Your task to perform on an android device: open app "Pinterest" Image 0: 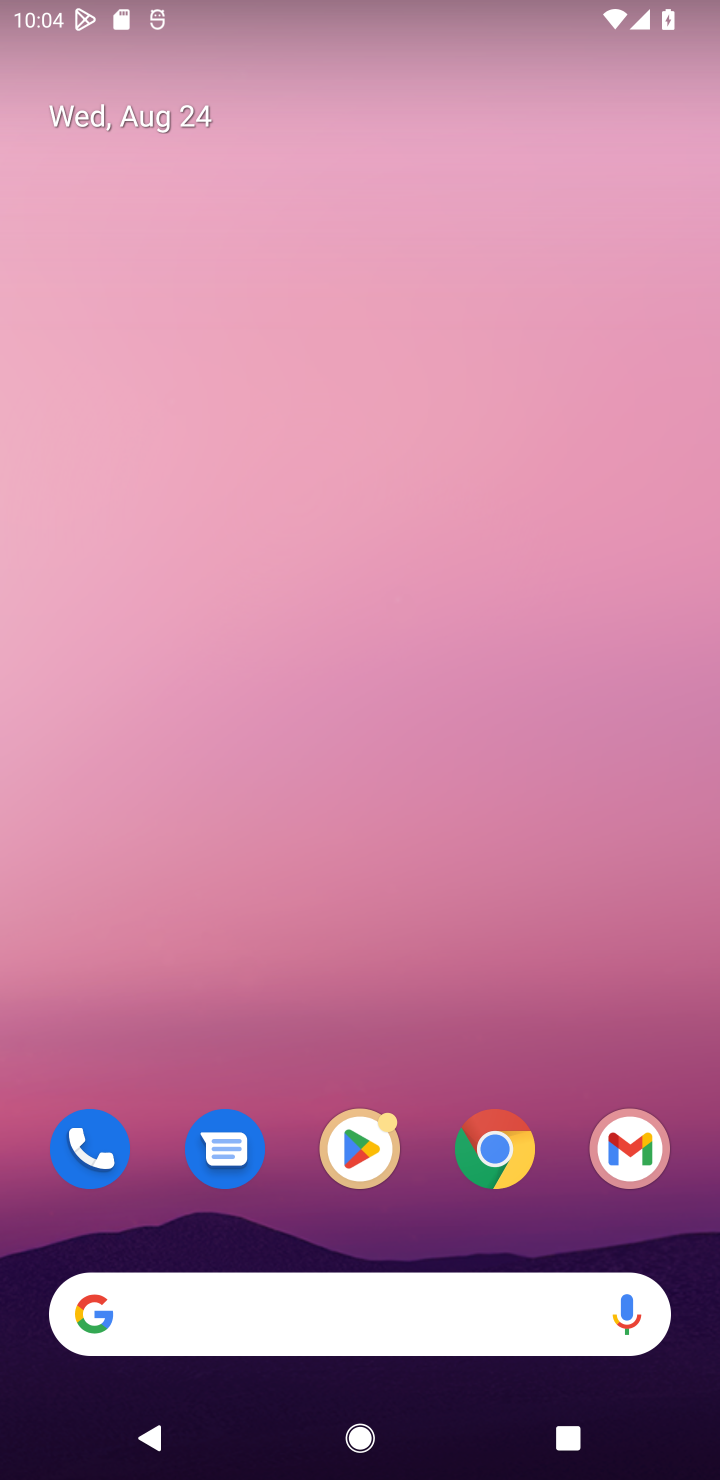
Step 0: drag from (489, 1084) to (518, 90)
Your task to perform on an android device: open app "Pinterest" Image 1: 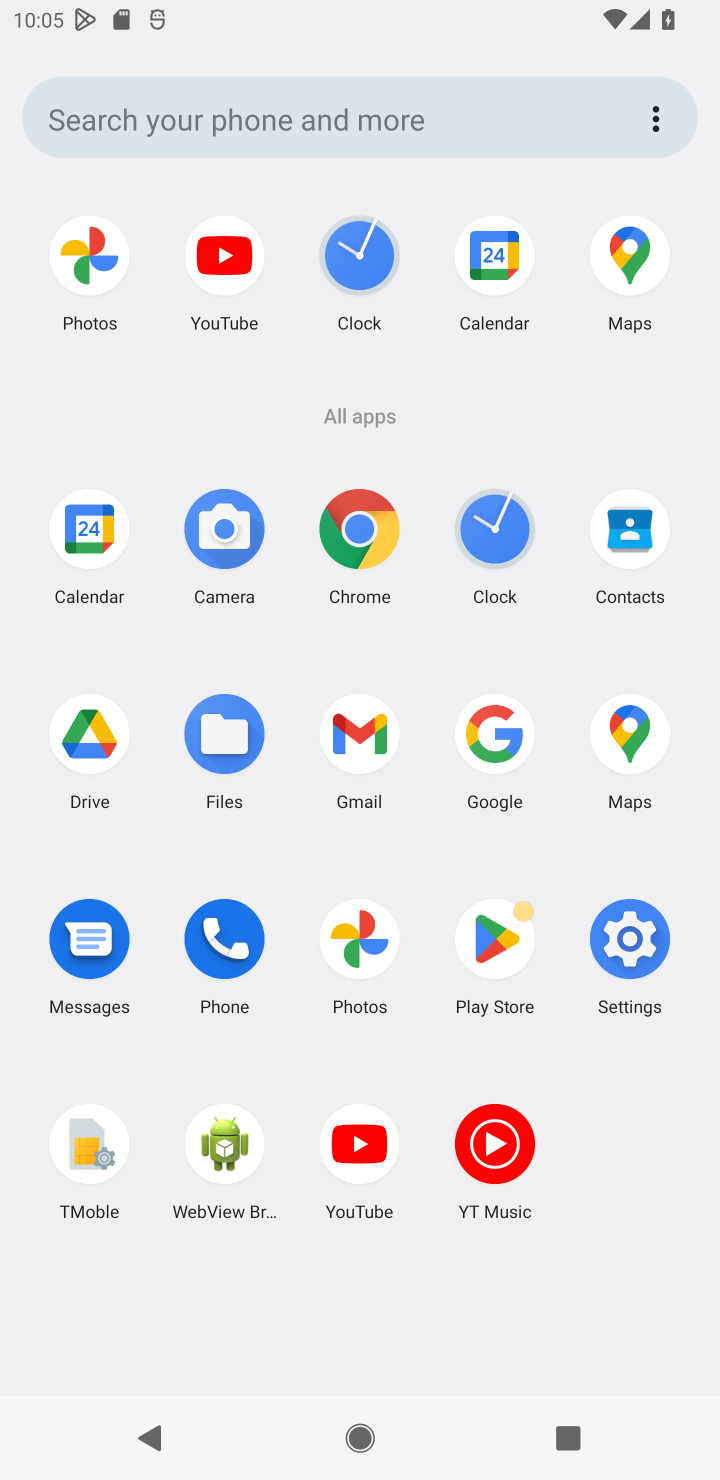
Step 1: click (495, 959)
Your task to perform on an android device: open app "Pinterest" Image 2: 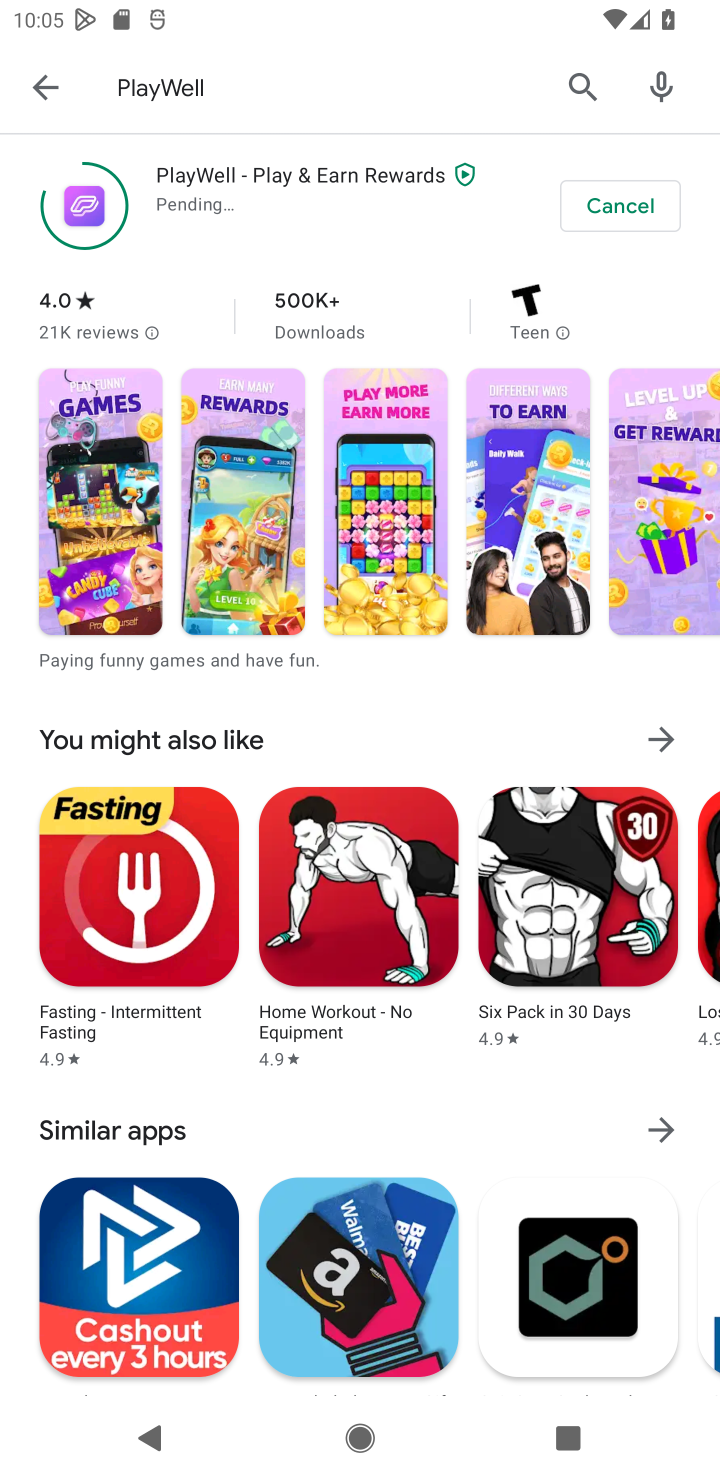
Step 2: press back button
Your task to perform on an android device: open app "Pinterest" Image 3: 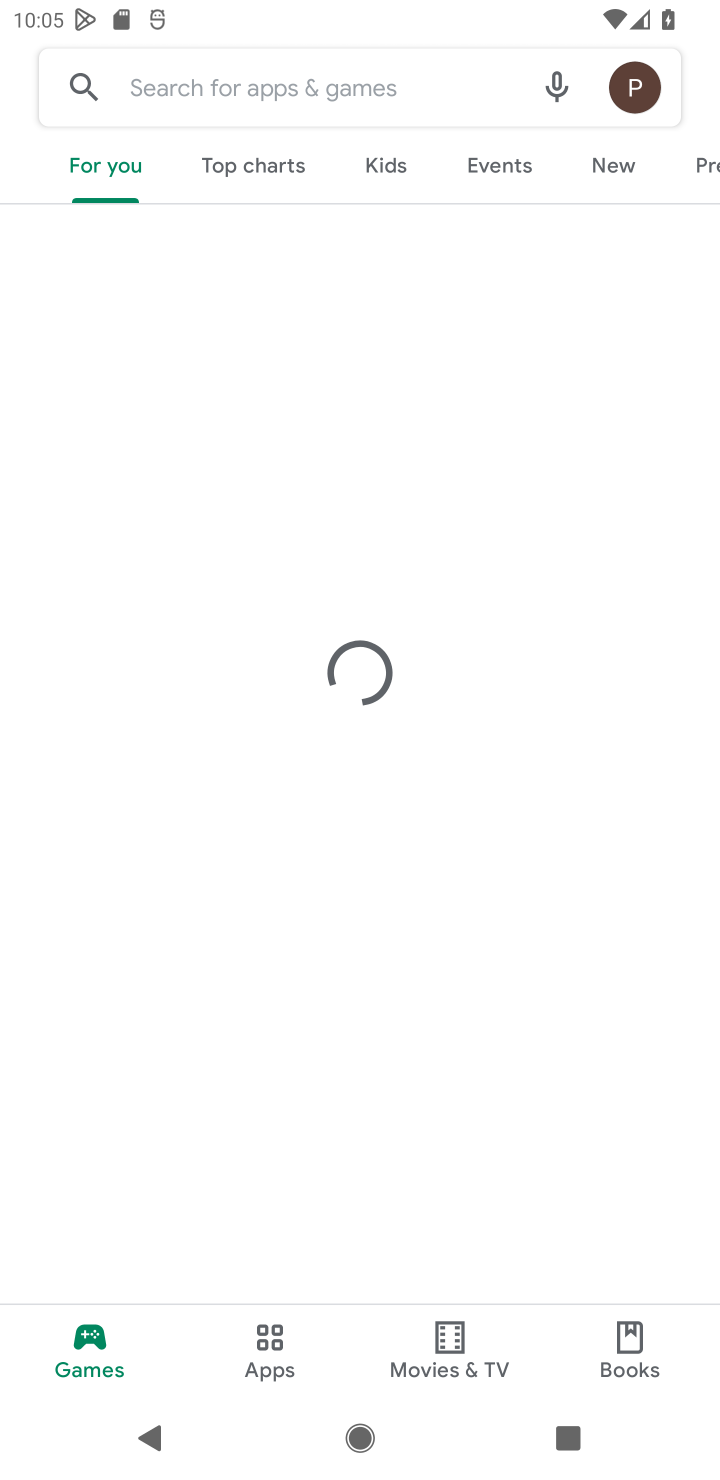
Step 3: click (251, 91)
Your task to perform on an android device: open app "Pinterest" Image 4: 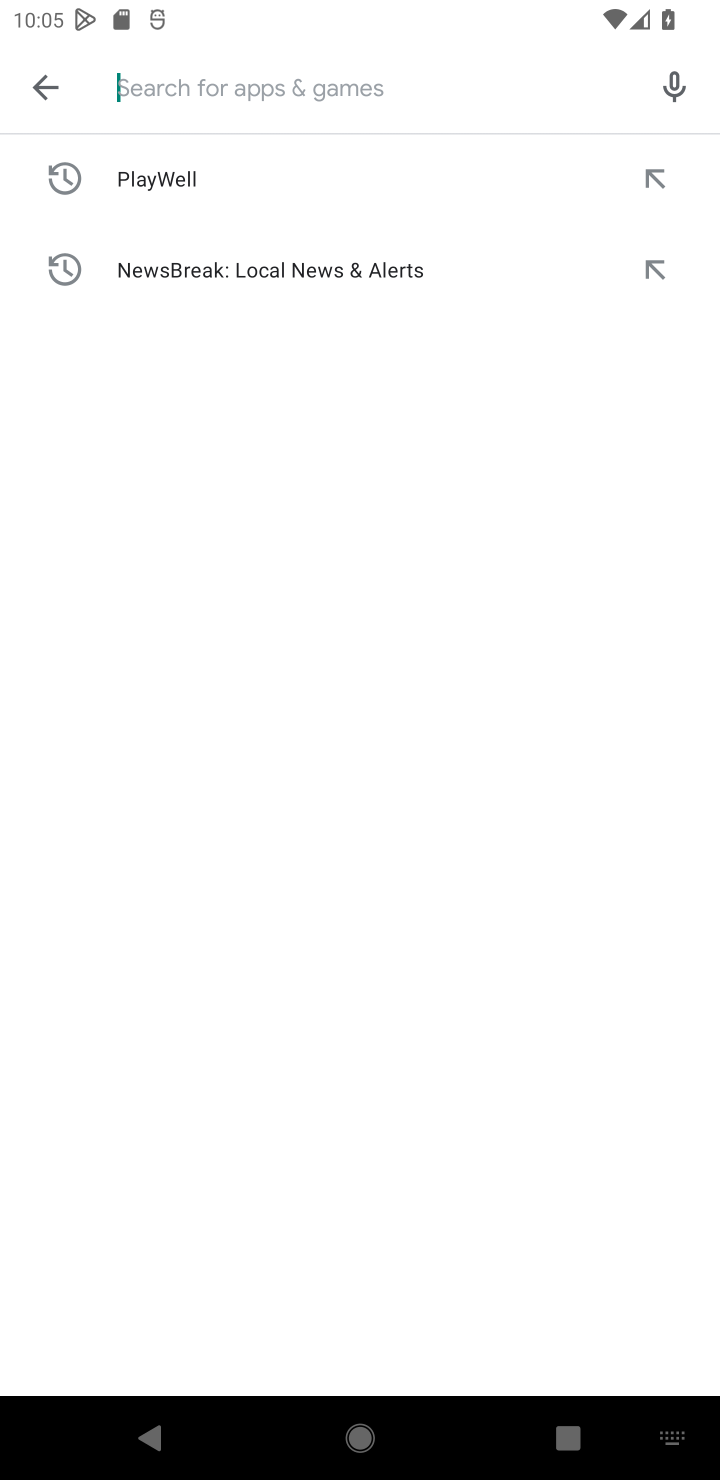
Step 4: type "Pinterest"
Your task to perform on an android device: open app "Pinterest" Image 5: 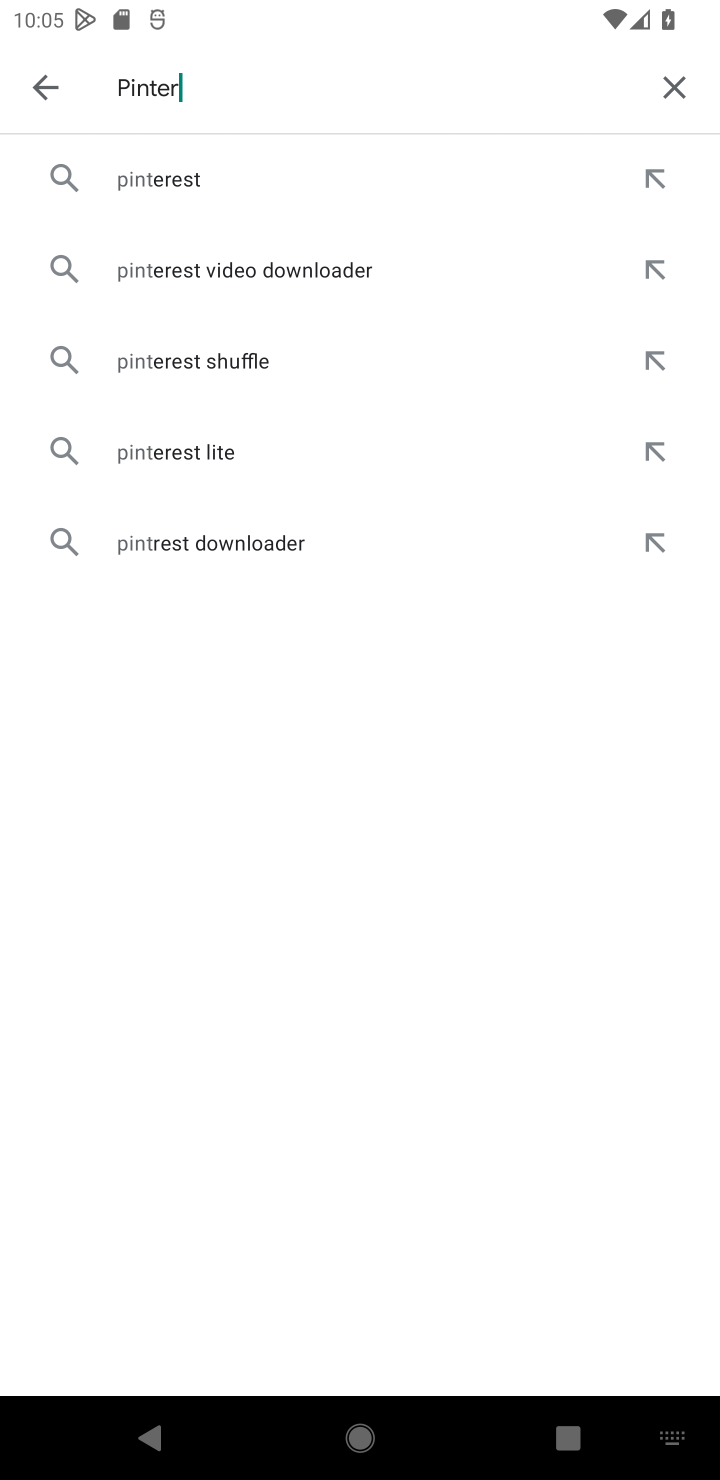
Step 5: press enter
Your task to perform on an android device: open app "Pinterest" Image 6: 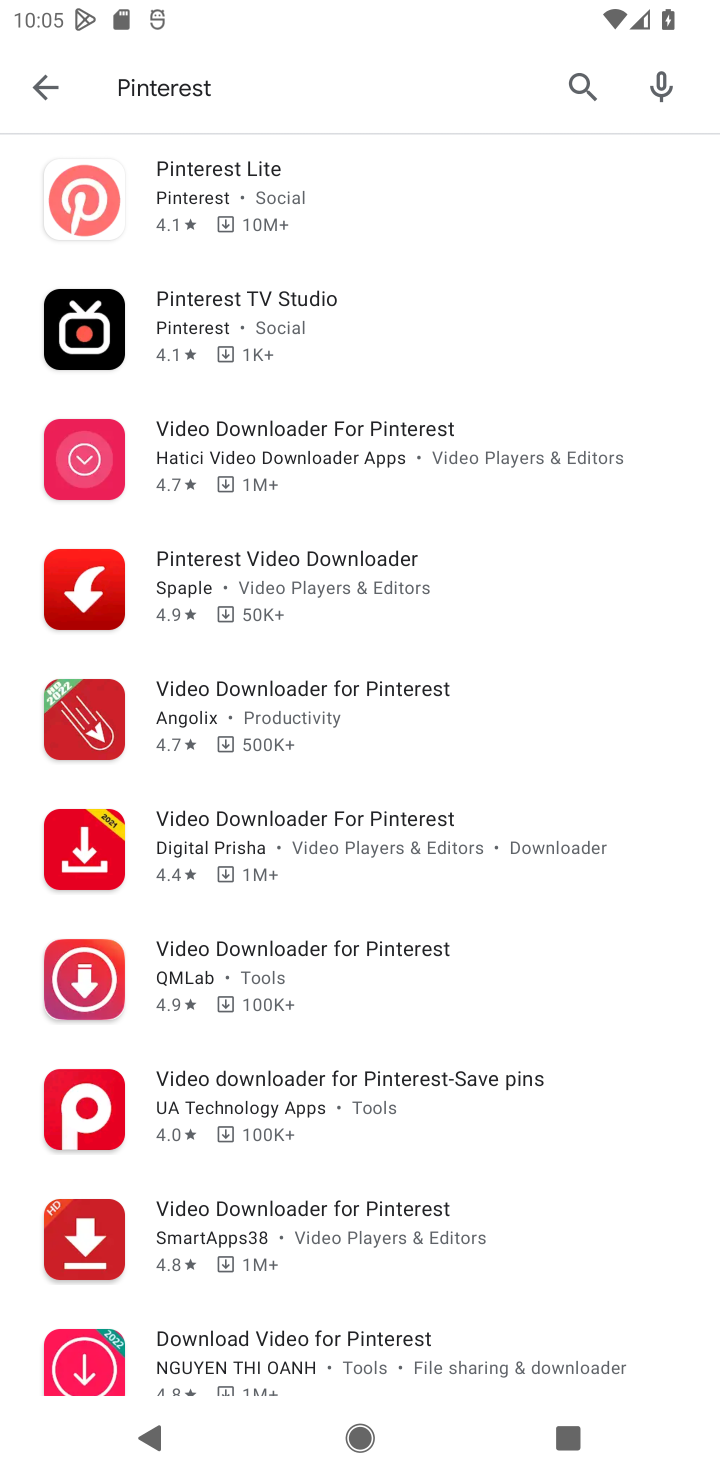
Step 6: click (274, 211)
Your task to perform on an android device: open app "Pinterest" Image 7: 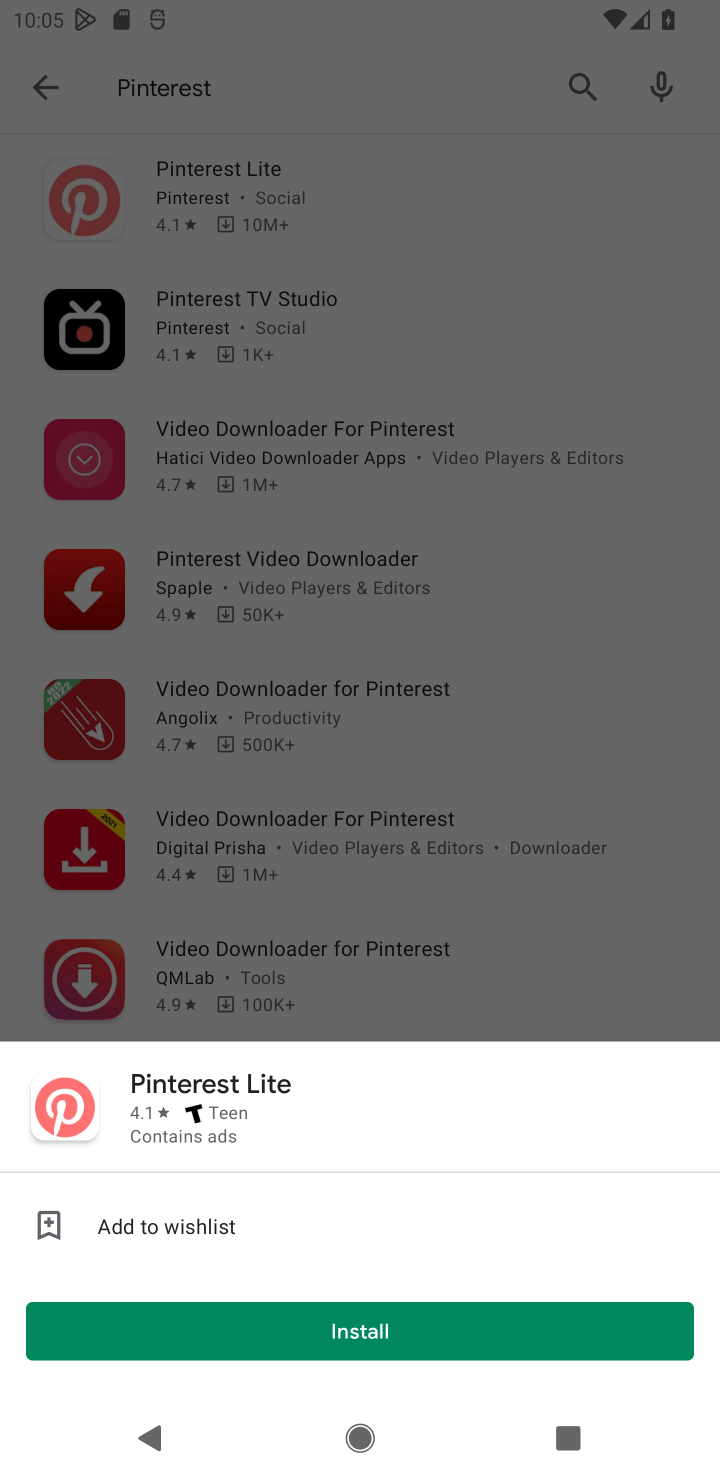
Step 7: task complete